Your task to perform on an android device: Check the news Image 0: 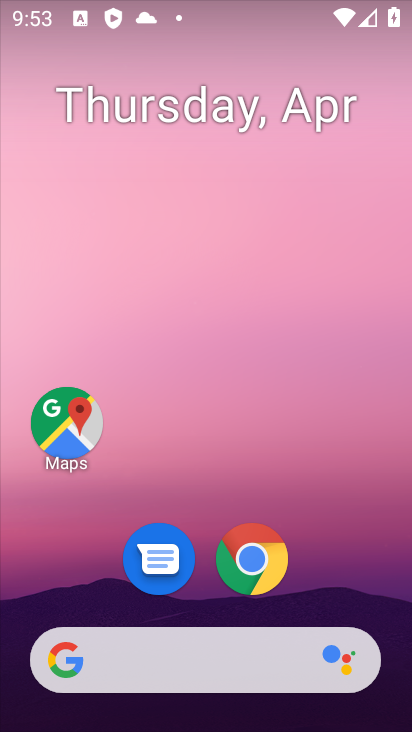
Step 0: click (245, 653)
Your task to perform on an android device: Check the news Image 1: 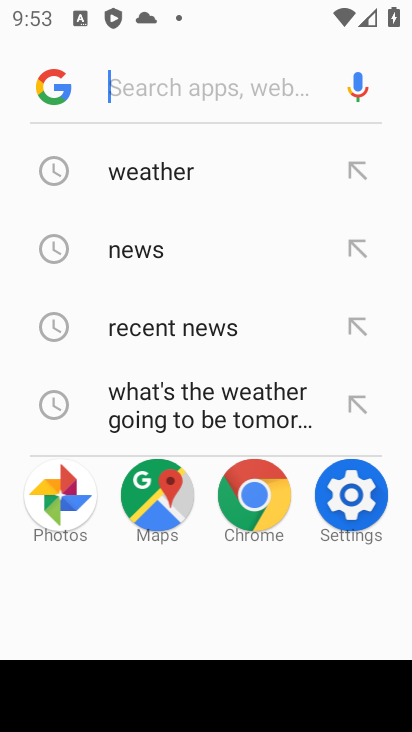
Step 1: click (123, 252)
Your task to perform on an android device: Check the news Image 2: 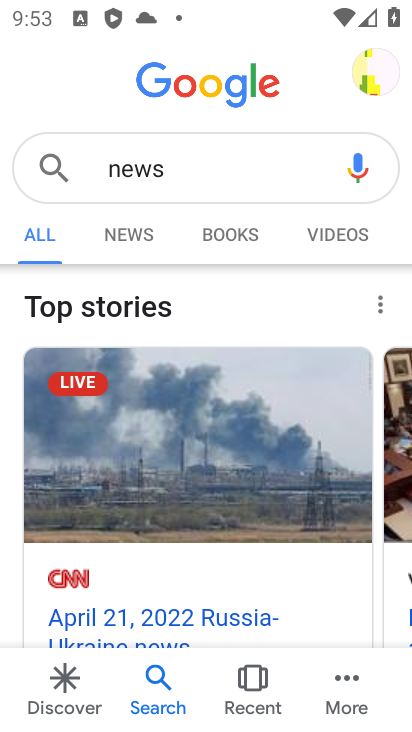
Step 2: task complete